Your task to perform on an android device: create a new album in the google photos Image 0: 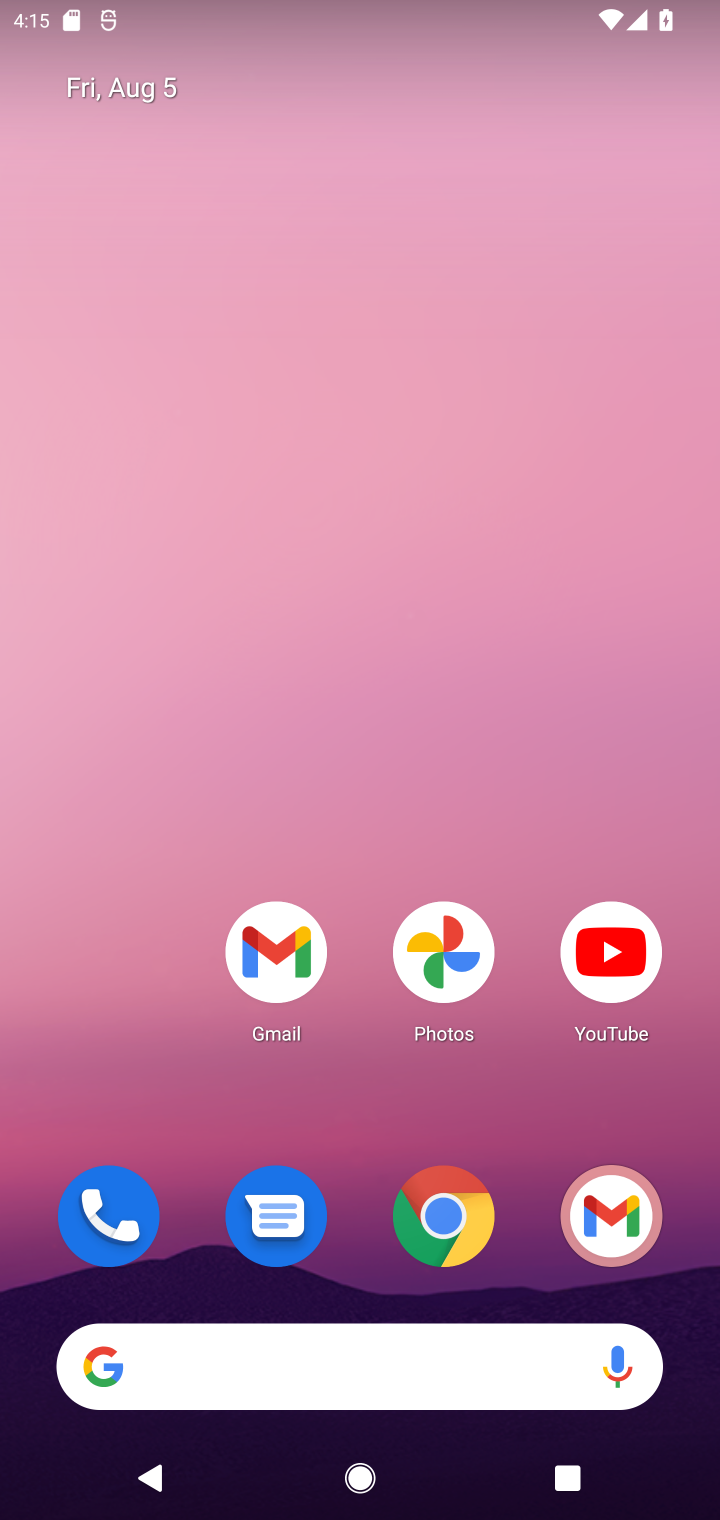
Step 0: click (453, 962)
Your task to perform on an android device: create a new album in the google photos Image 1: 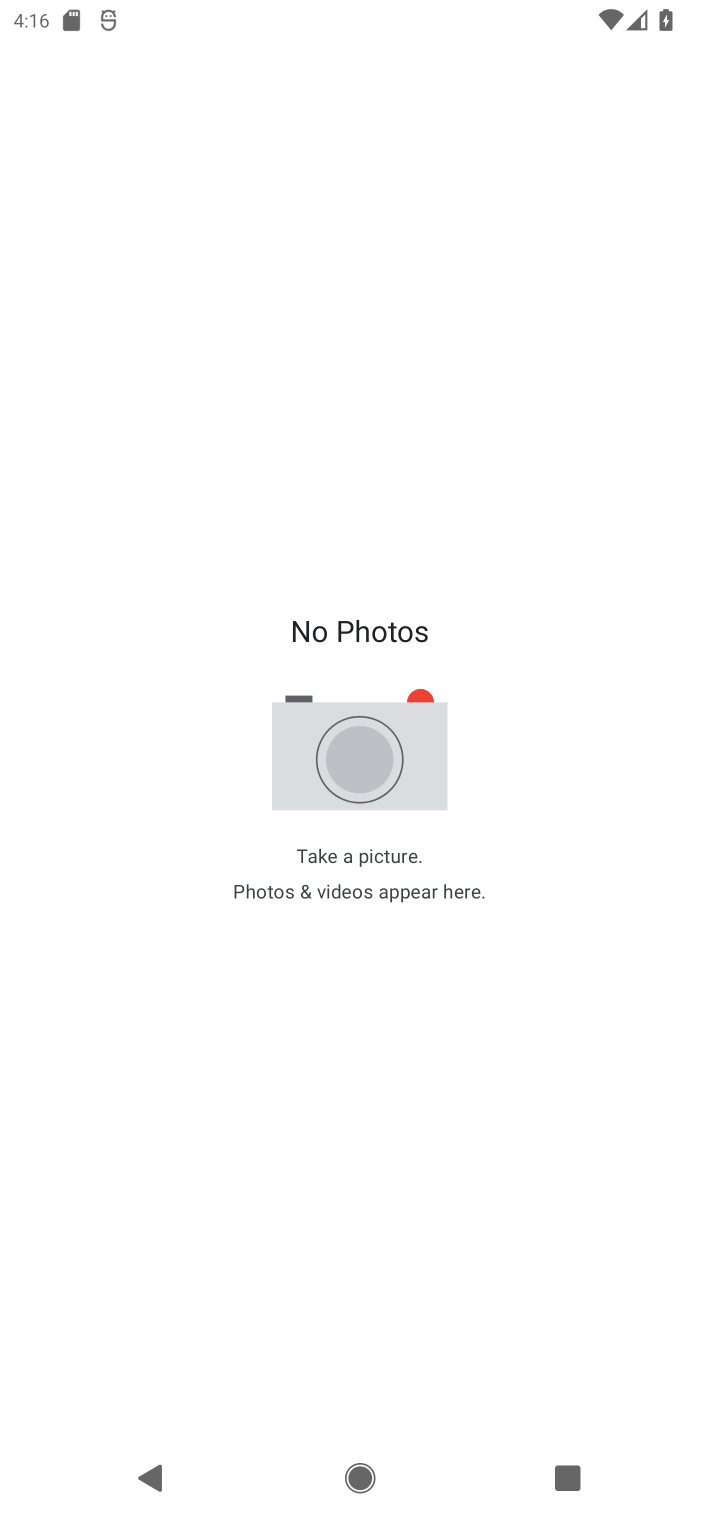
Step 1: click (355, 784)
Your task to perform on an android device: create a new album in the google photos Image 2: 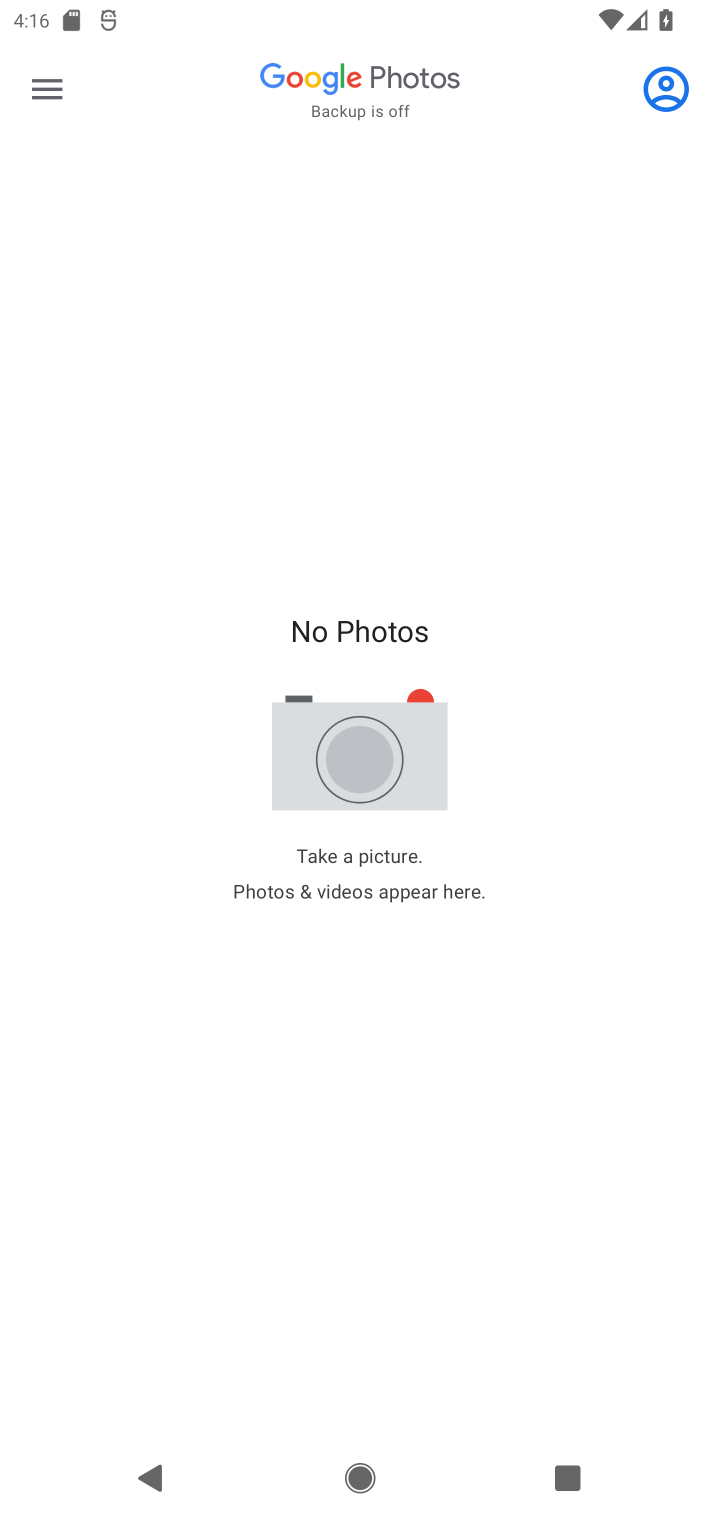
Step 2: task complete